Your task to perform on an android device: Open network settings Image 0: 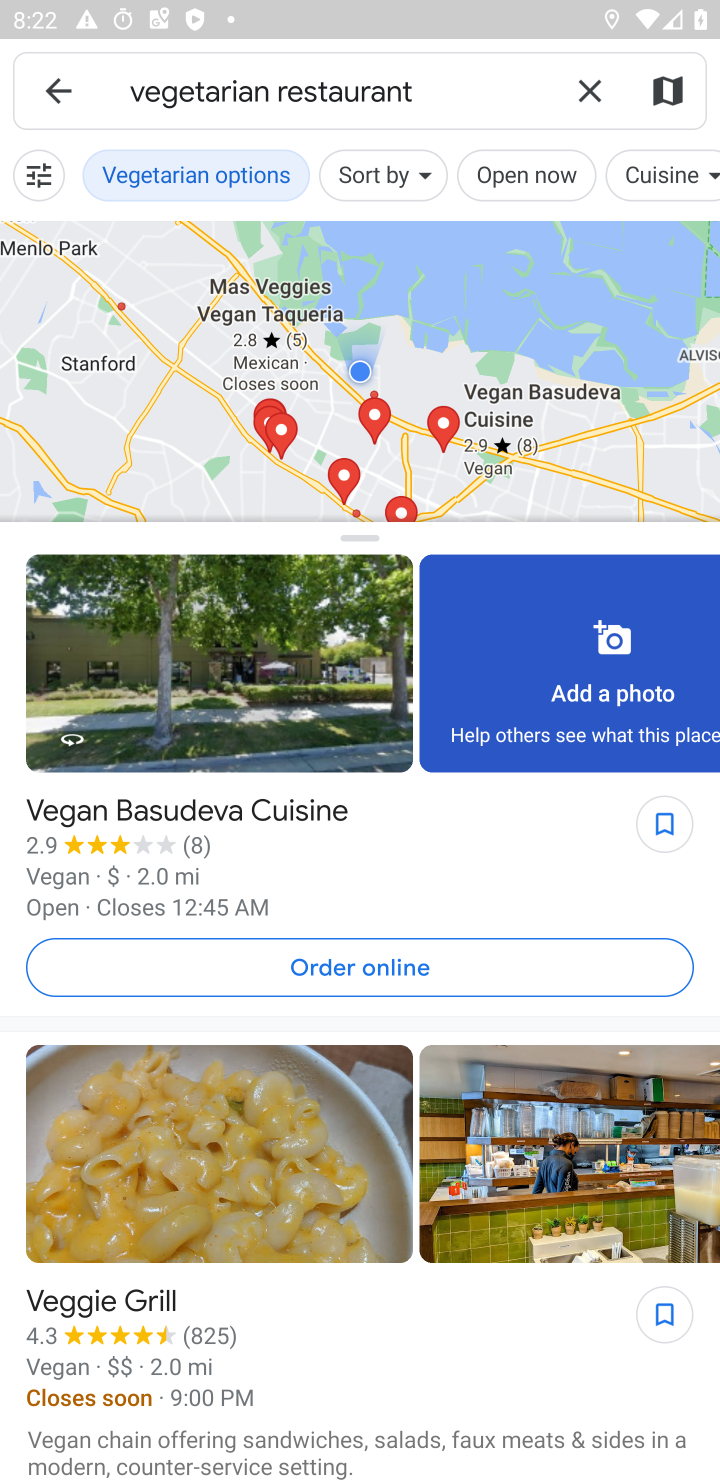
Step 0: press home button
Your task to perform on an android device: Open network settings Image 1: 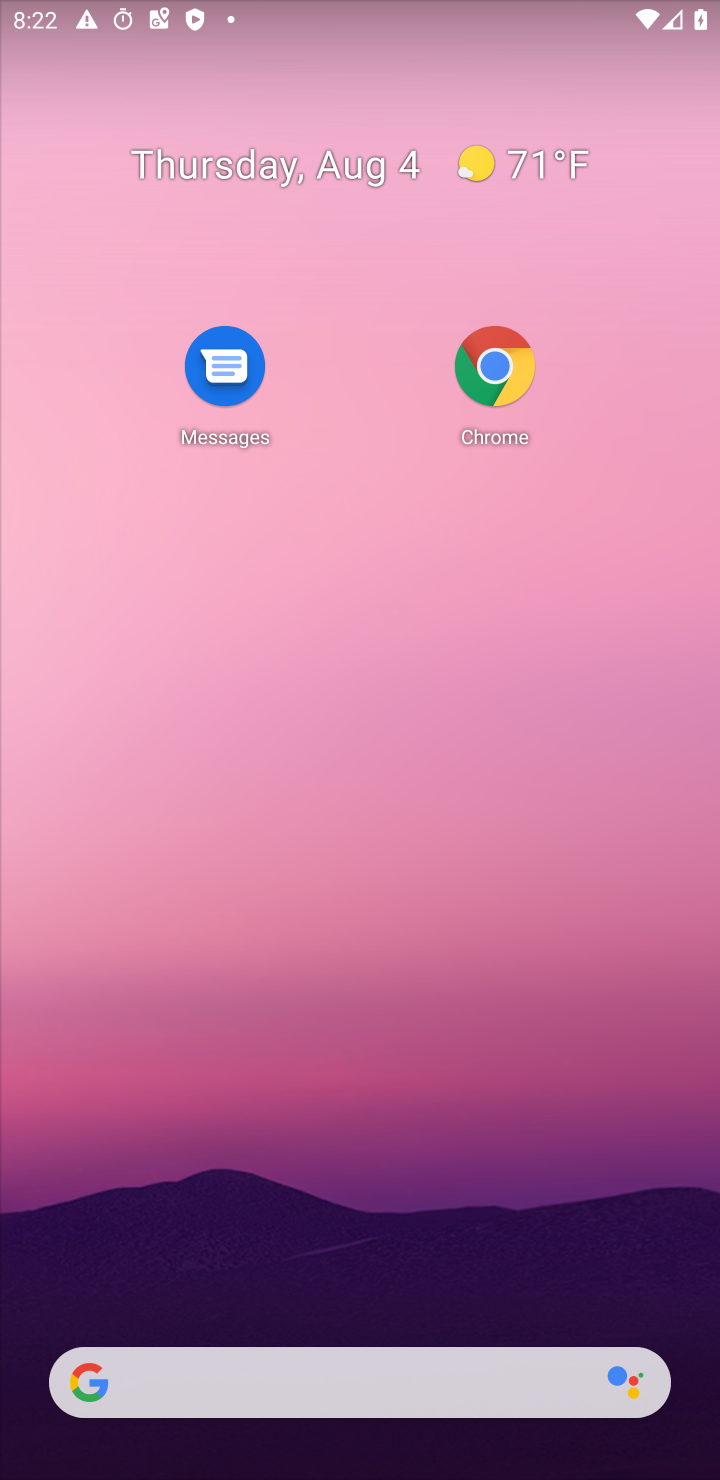
Step 1: drag from (346, 1406) to (279, 270)
Your task to perform on an android device: Open network settings Image 2: 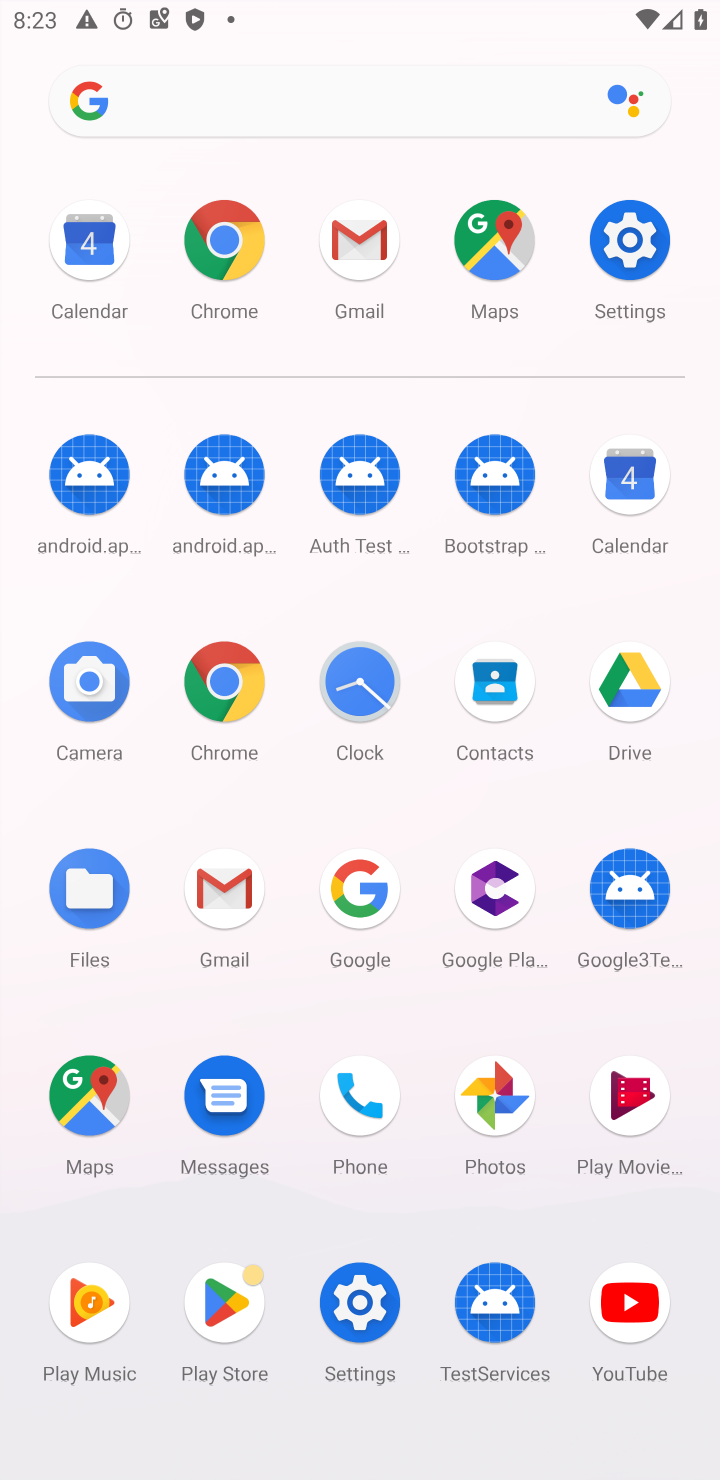
Step 2: click (629, 265)
Your task to perform on an android device: Open network settings Image 3: 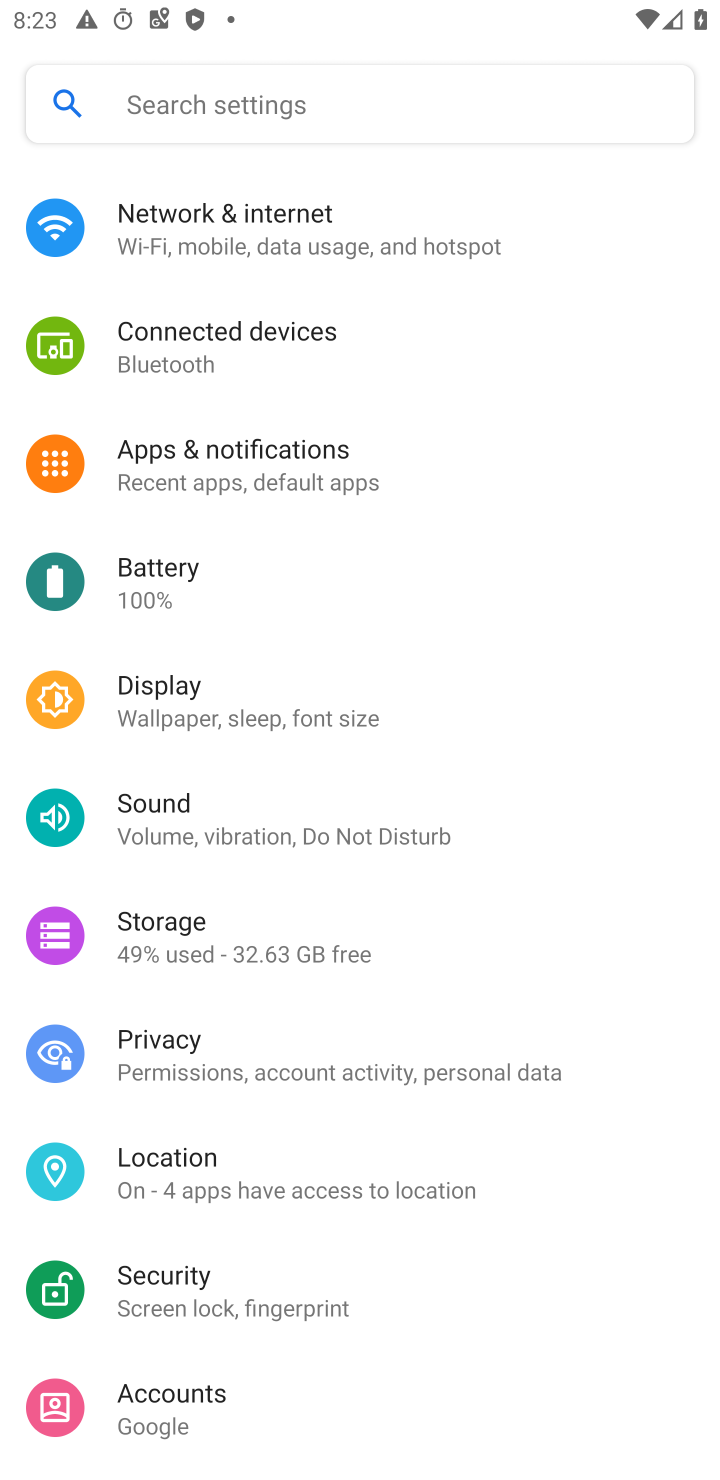
Step 3: click (225, 112)
Your task to perform on an android device: Open network settings Image 4: 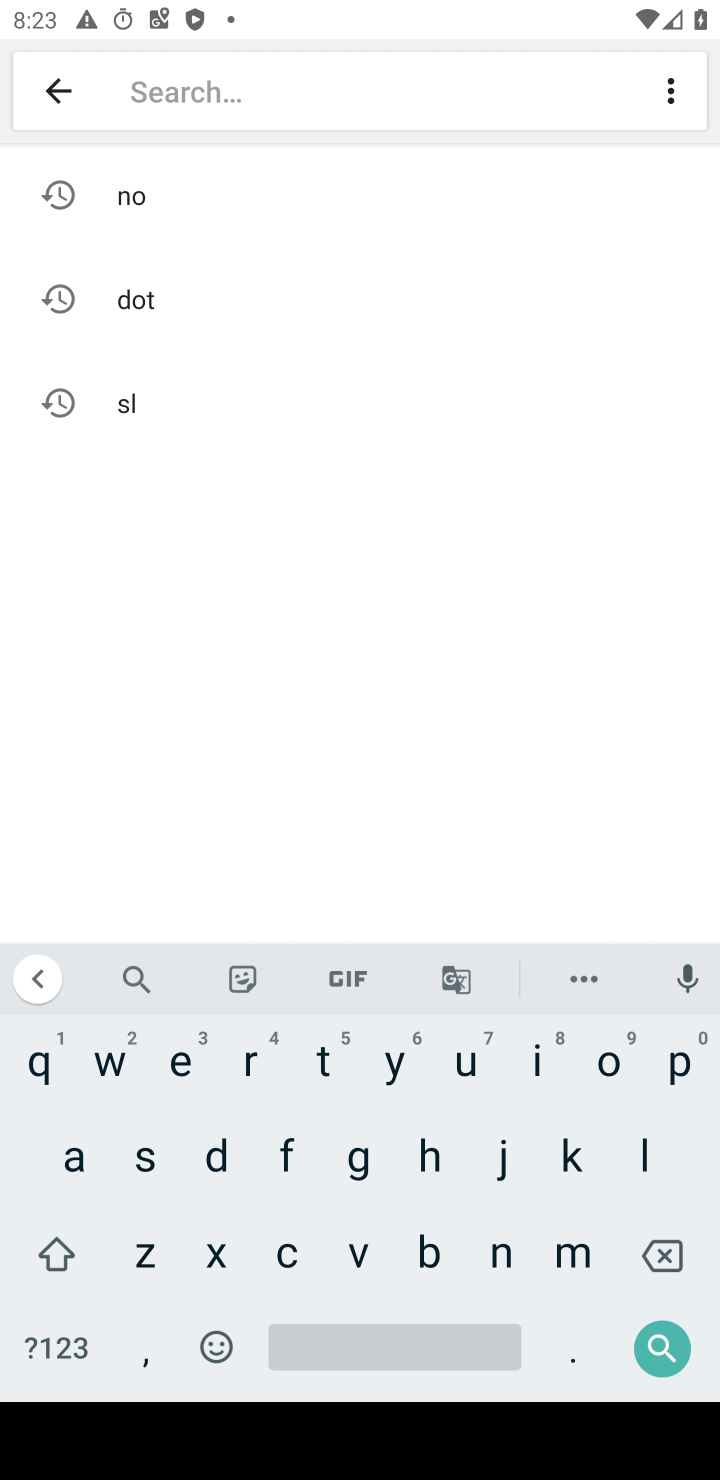
Step 4: click (40, 111)
Your task to perform on an android device: Open network settings Image 5: 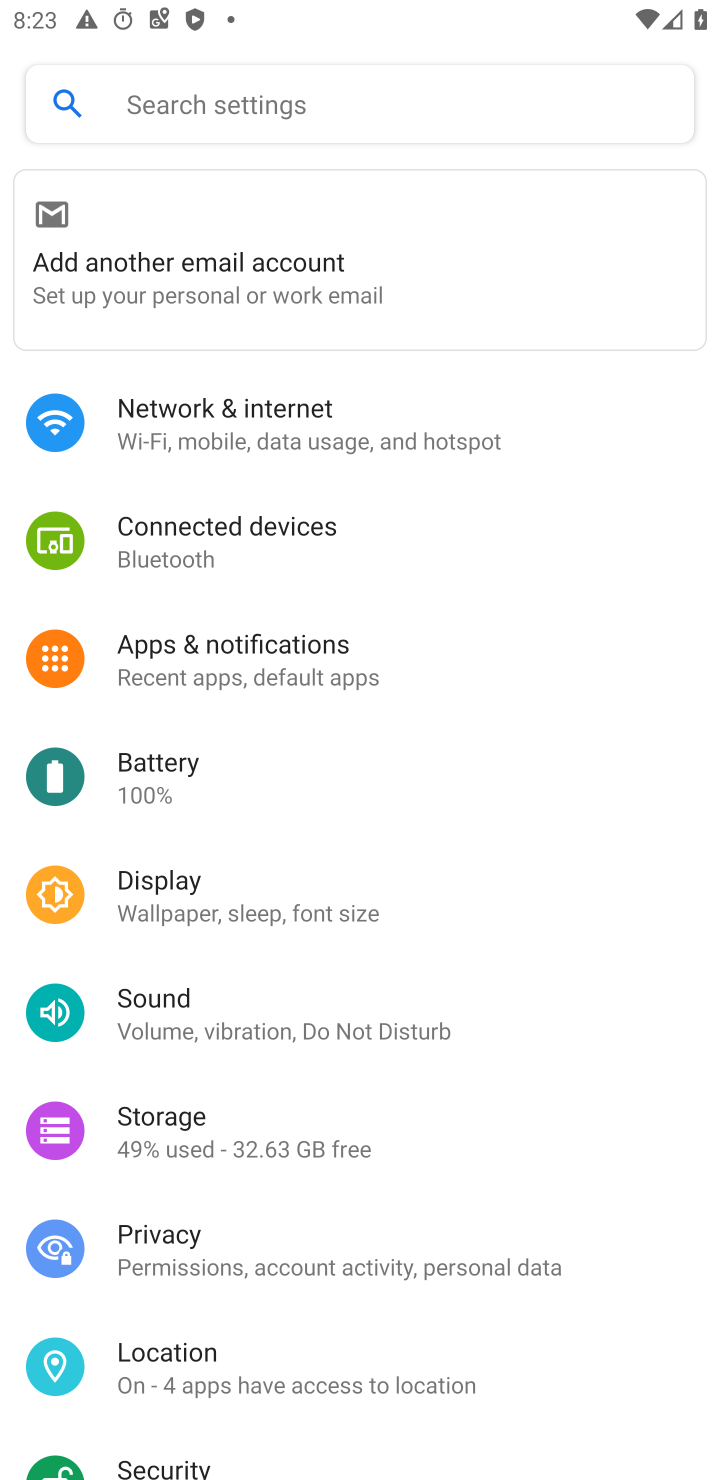
Step 5: click (348, 449)
Your task to perform on an android device: Open network settings Image 6: 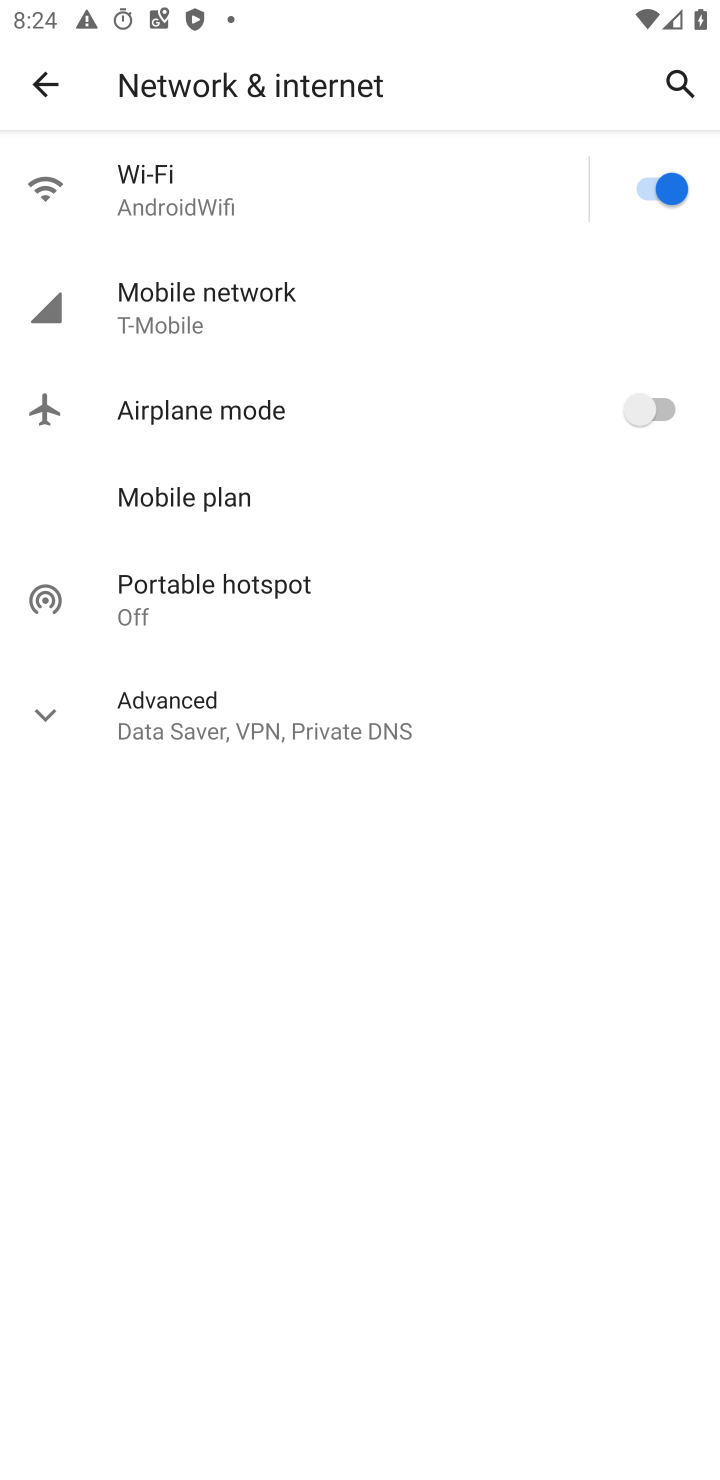
Step 6: task complete